Your task to perform on an android device: Go to sound settings Image 0: 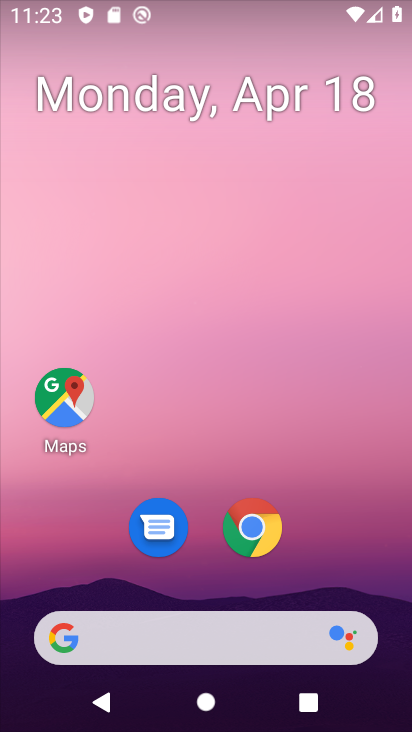
Step 0: drag from (201, 610) to (365, 0)
Your task to perform on an android device: Go to sound settings Image 1: 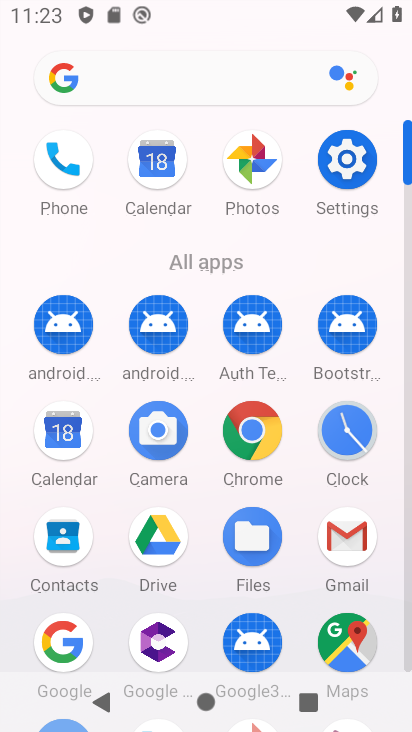
Step 1: click (339, 157)
Your task to perform on an android device: Go to sound settings Image 2: 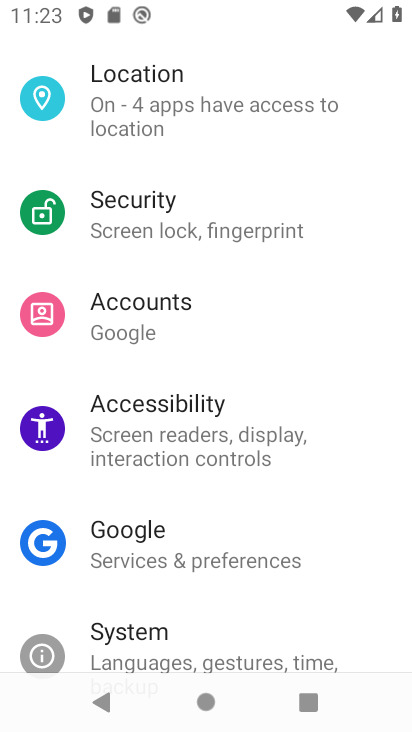
Step 2: drag from (224, 347) to (325, 34)
Your task to perform on an android device: Go to sound settings Image 3: 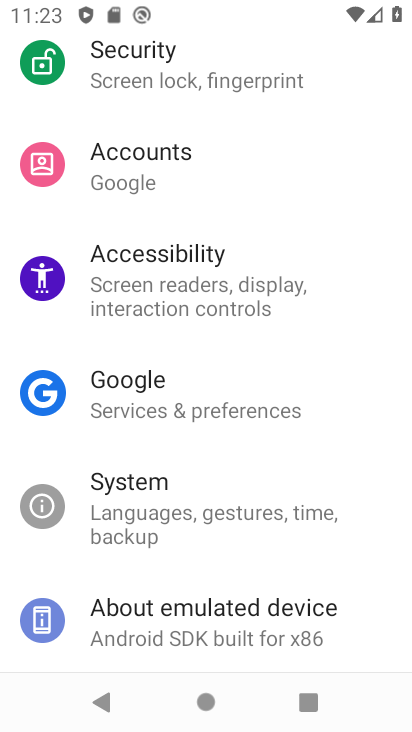
Step 3: drag from (256, 472) to (265, 727)
Your task to perform on an android device: Go to sound settings Image 4: 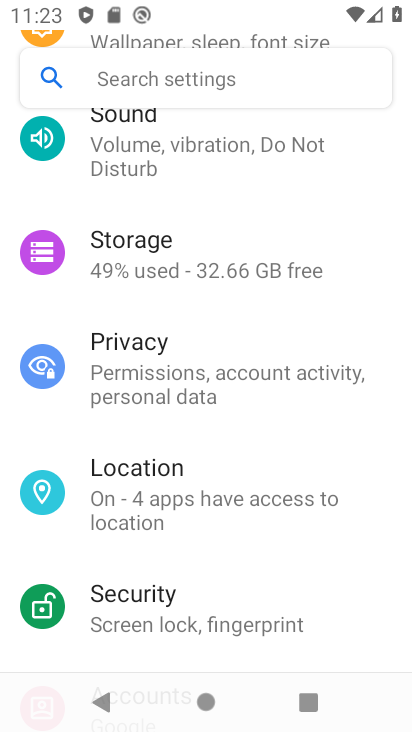
Step 4: drag from (270, 231) to (259, 354)
Your task to perform on an android device: Go to sound settings Image 5: 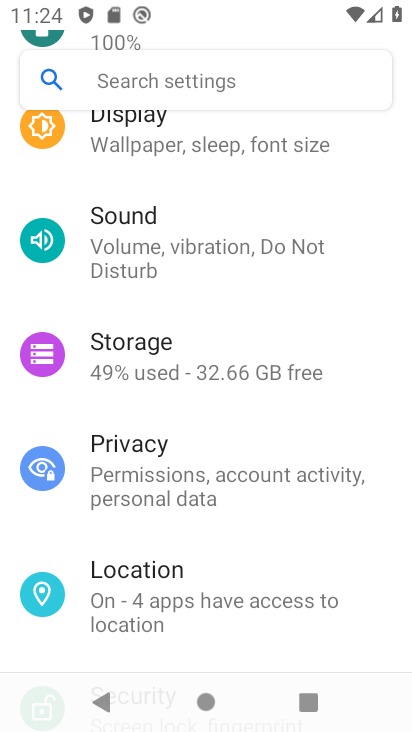
Step 5: click (233, 272)
Your task to perform on an android device: Go to sound settings Image 6: 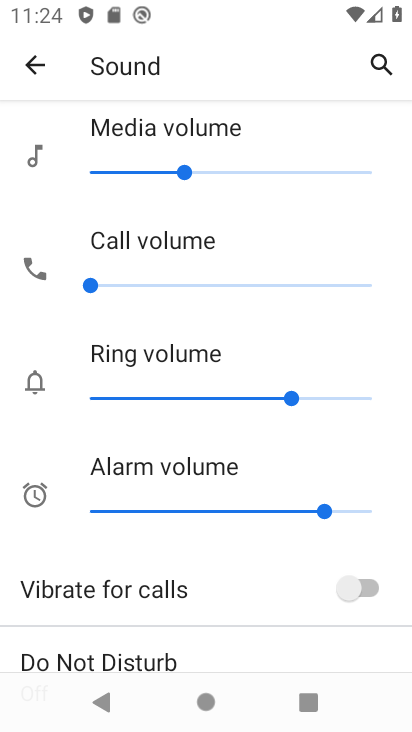
Step 6: task complete